Your task to perform on an android device: toggle notifications settings in the gmail app Image 0: 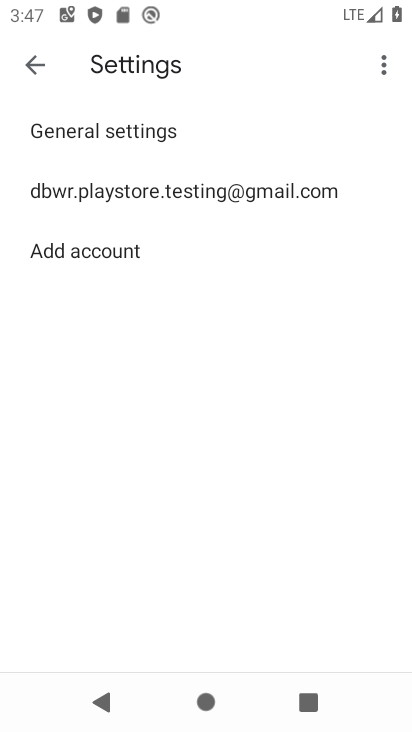
Step 0: press home button
Your task to perform on an android device: toggle notifications settings in the gmail app Image 1: 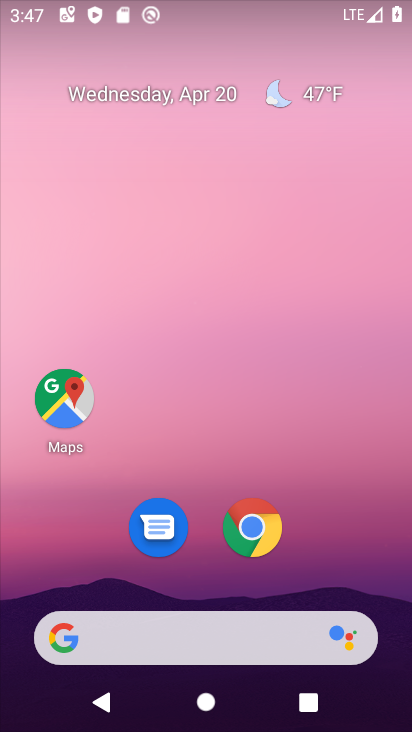
Step 1: drag from (338, 547) to (359, 196)
Your task to perform on an android device: toggle notifications settings in the gmail app Image 2: 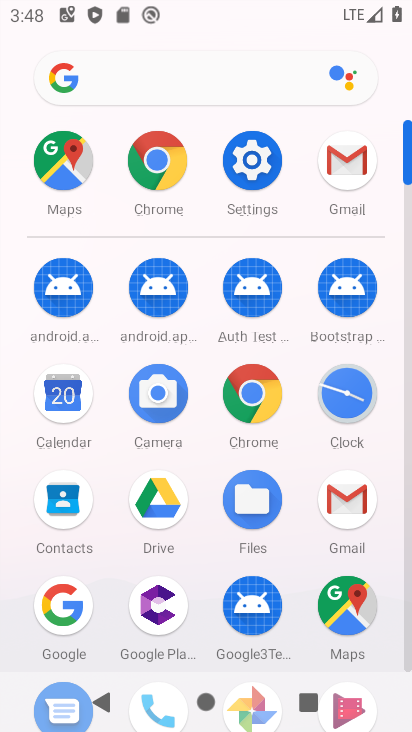
Step 2: click (350, 190)
Your task to perform on an android device: toggle notifications settings in the gmail app Image 3: 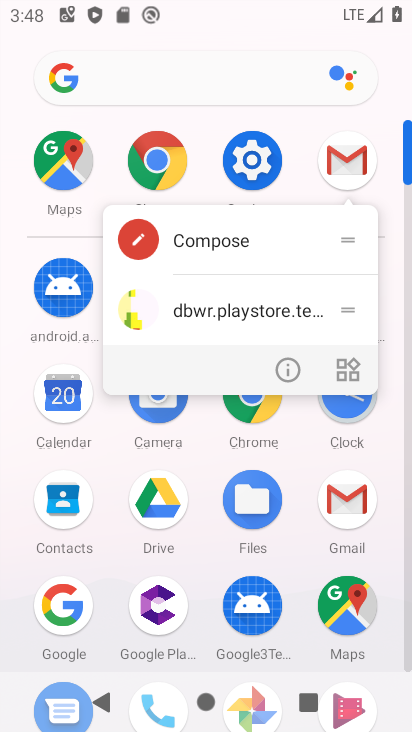
Step 3: click (348, 182)
Your task to perform on an android device: toggle notifications settings in the gmail app Image 4: 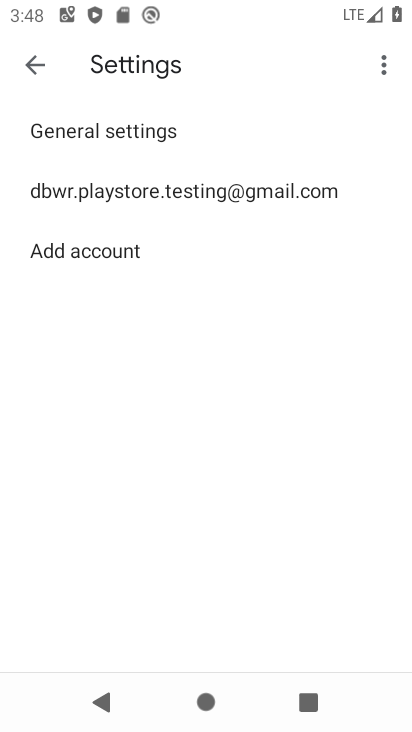
Step 4: click (269, 189)
Your task to perform on an android device: toggle notifications settings in the gmail app Image 5: 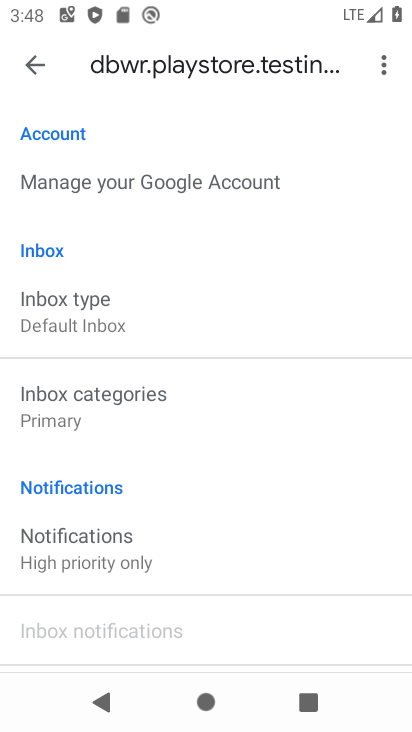
Step 5: click (120, 557)
Your task to perform on an android device: toggle notifications settings in the gmail app Image 6: 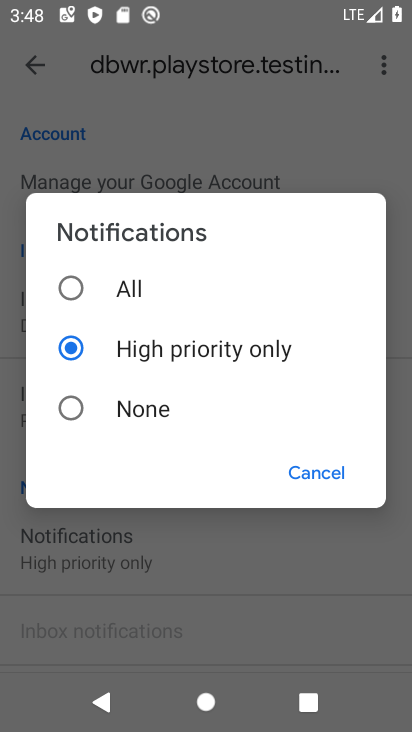
Step 6: click (153, 299)
Your task to perform on an android device: toggle notifications settings in the gmail app Image 7: 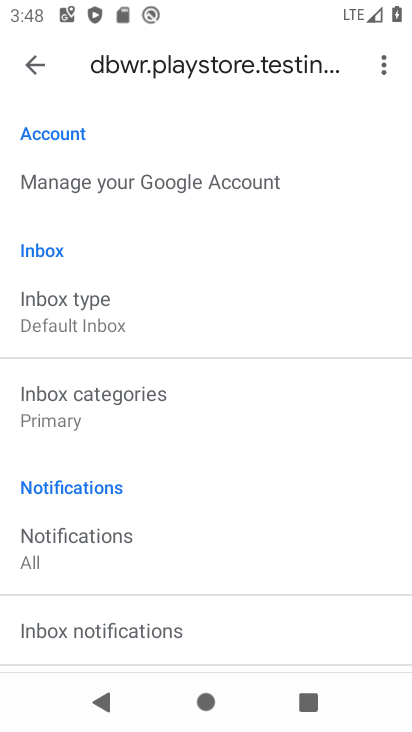
Step 7: task complete